Your task to perform on an android device: Is it going to rain tomorrow? Image 0: 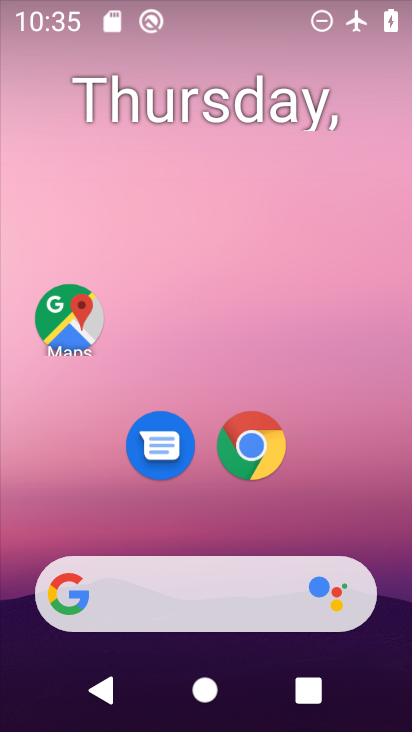
Step 0: click (214, 576)
Your task to perform on an android device: Is it going to rain tomorrow? Image 1: 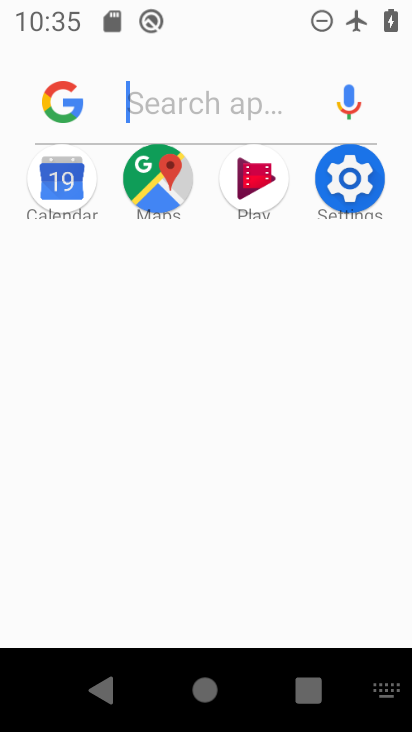
Step 1: click (140, 111)
Your task to perform on an android device: Is it going to rain tomorrow? Image 2: 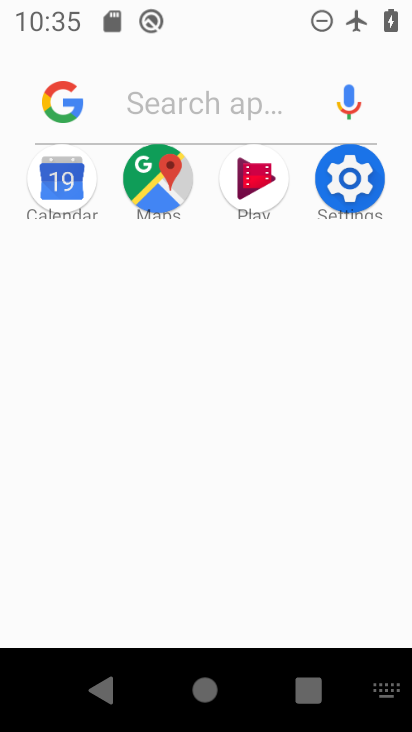
Step 2: task complete